Your task to perform on an android device: What's the weather going to be tomorrow? Image 0: 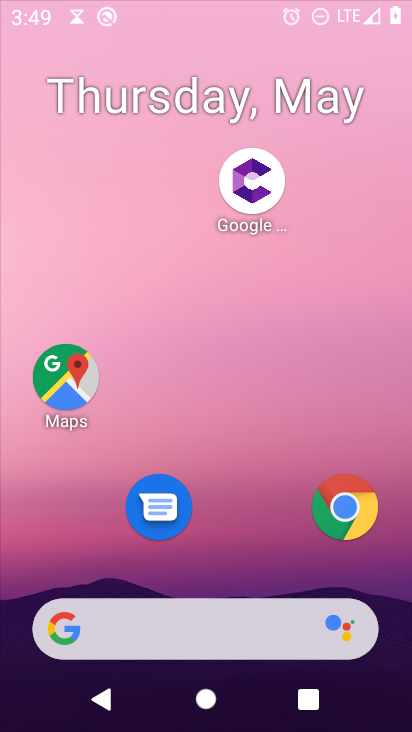
Step 0: press home button
Your task to perform on an android device: What's the weather going to be tomorrow? Image 1: 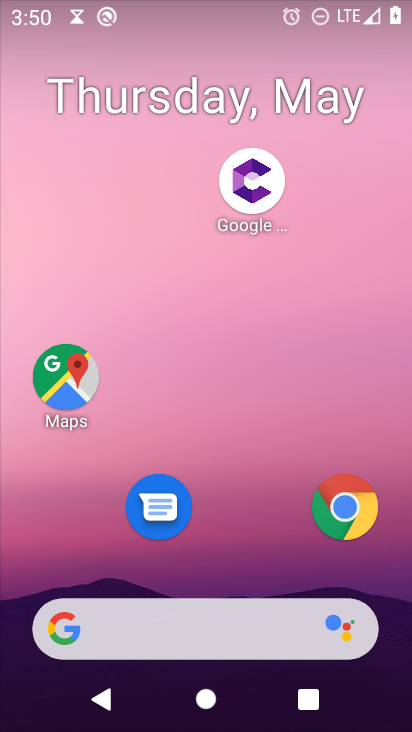
Step 1: click (72, 636)
Your task to perform on an android device: What's the weather going to be tomorrow? Image 2: 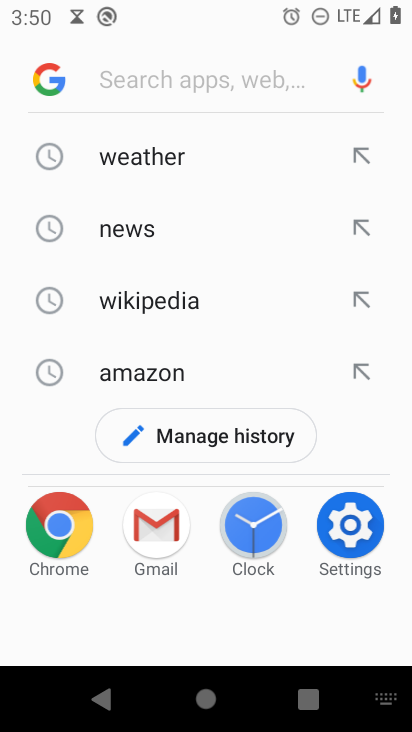
Step 2: type "weather going to be tomorrow?"
Your task to perform on an android device: What's the weather going to be tomorrow? Image 3: 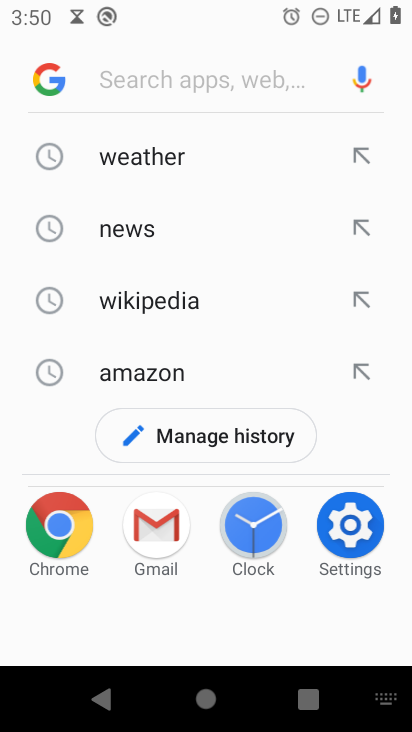
Step 3: click (199, 74)
Your task to perform on an android device: What's the weather going to be tomorrow? Image 4: 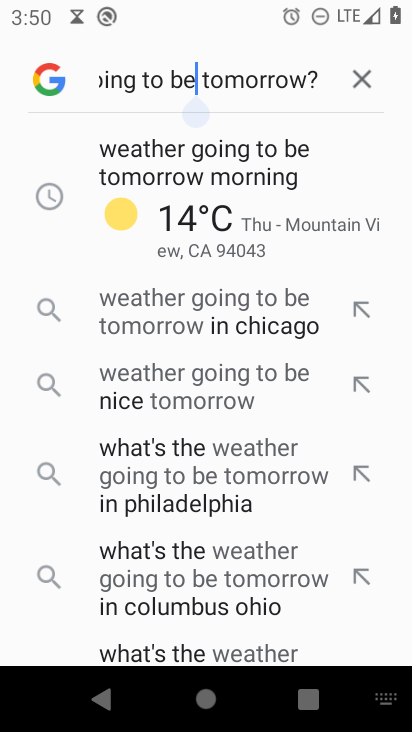
Step 4: click (166, 149)
Your task to perform on an android device: What's the weather going to be tomorrow? Image 5: 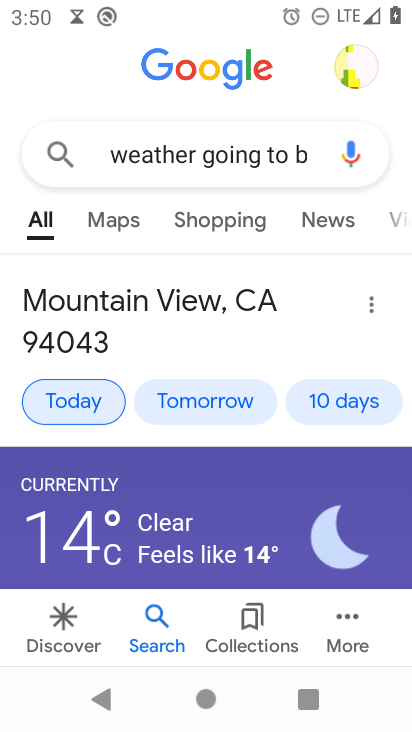
Step 5: task complete